Your task to perform on an android device: Show me recent news Image 0: 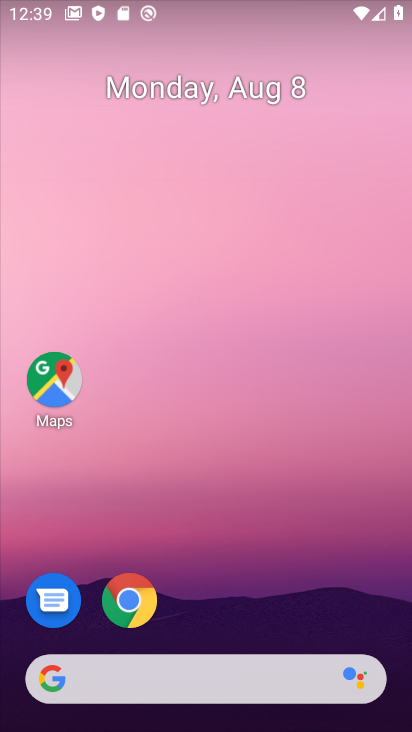
Step 0: click (136, 602)
Your task to perform on an android device: Show me recent news Image 1: 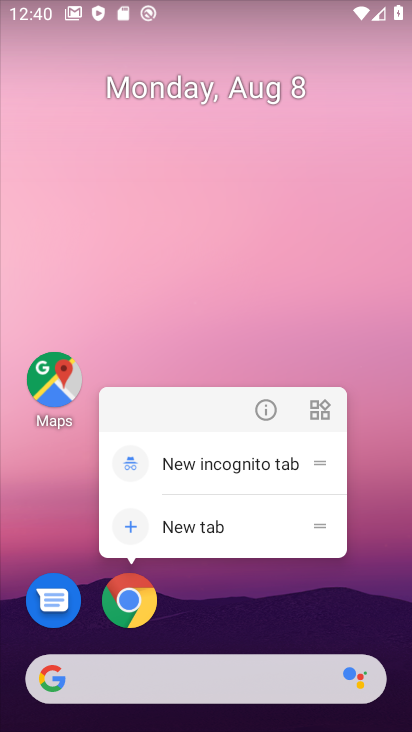
Step 1: click (135, 615)
Your task to perform on an android device: Show me recent news Image 2: 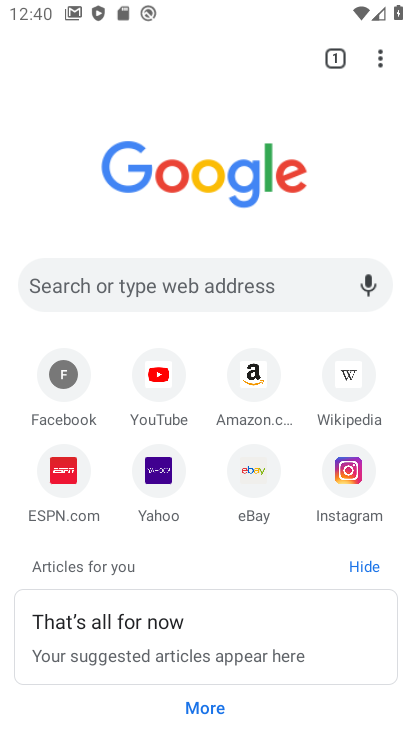
Step 2: click (280, 286)
Your task to perform on an android device: Show me recent news Image 3: 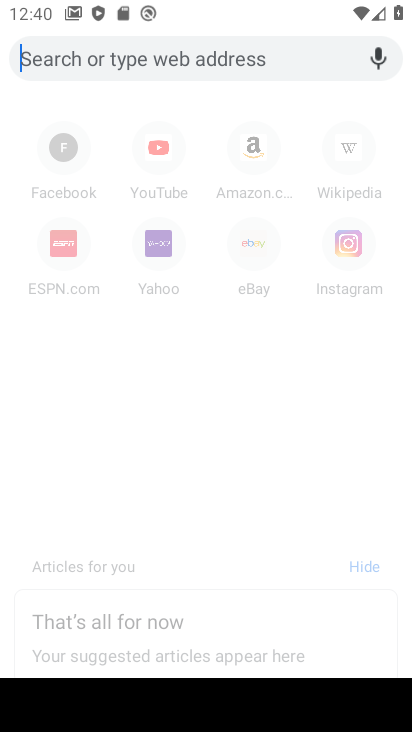
Step 3: type "Show me recent news"
Your task to perform on an android device: Show me recent news Image 4: 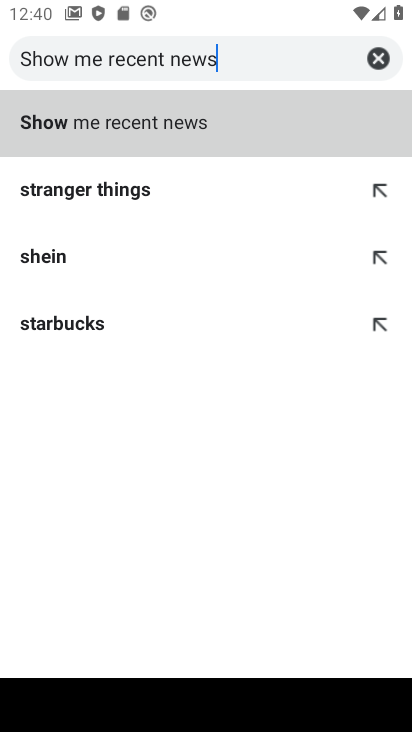
Step 4: type ""
Your task to perform on an android device: Show me recent news Image 5: 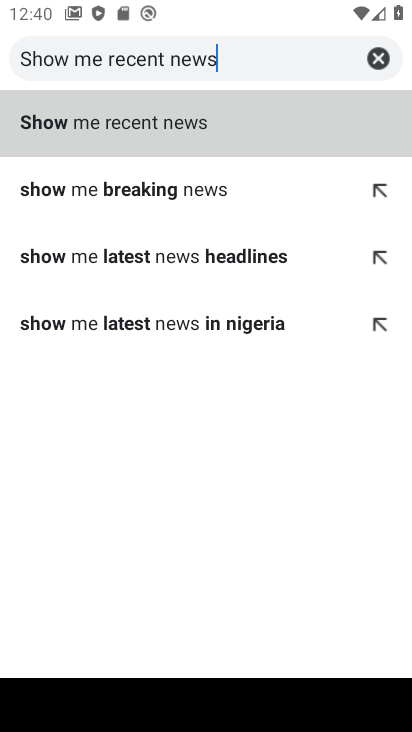
Step 5: click (111, 117)
Your task to perform on an android device: Show me recent news Image 6: 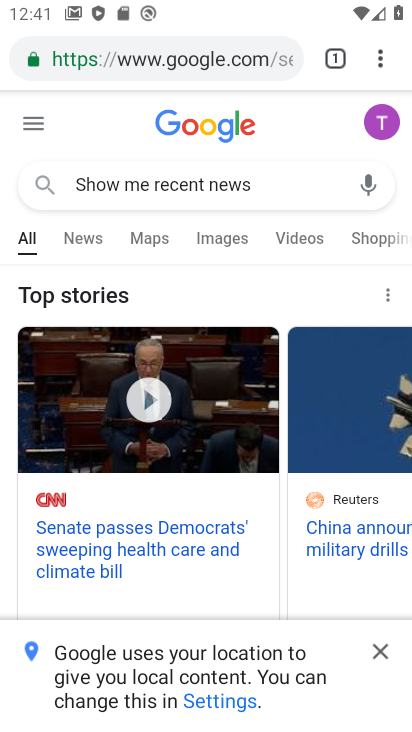
Step 6: task complete